Your task to perform on an android device: toggle priority inbox in the gmail app Image 0: 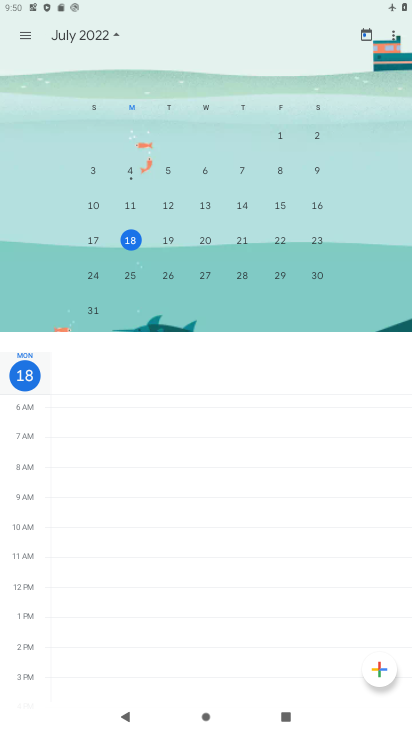
Step 0: press home button
Your task to perform on an android device: toggle priority inbox in the gmail app Image 1: 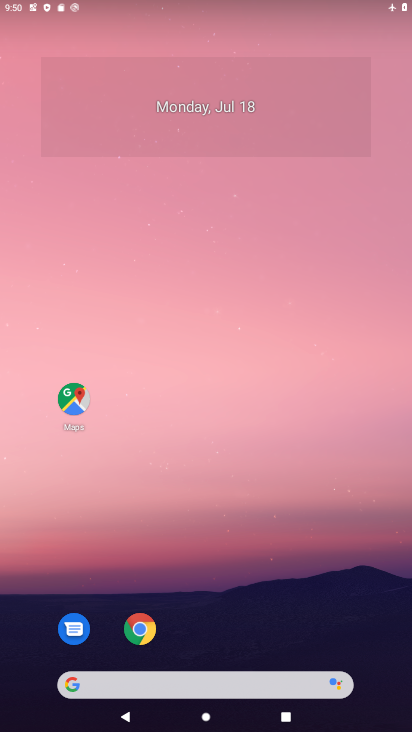
Step 1: drag from (319, 643) to (287, 202)
Your task to perform on an android device: toggle priority inbox in the gmail app Image 2: 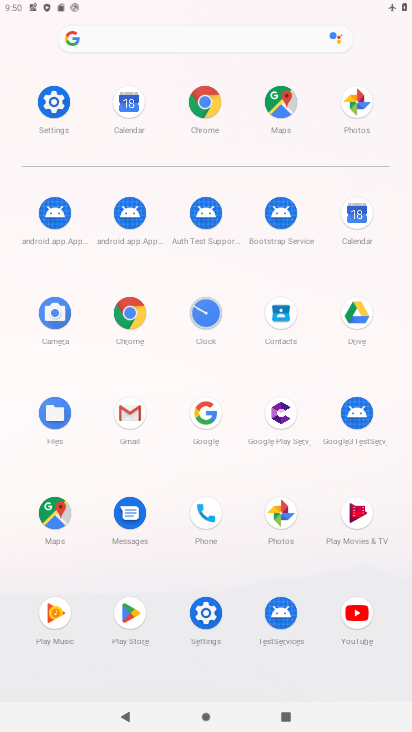
Step 2: click (137, 408)
Your task to perform on an android device: toggle priority inbox in the gmail app Image 3: 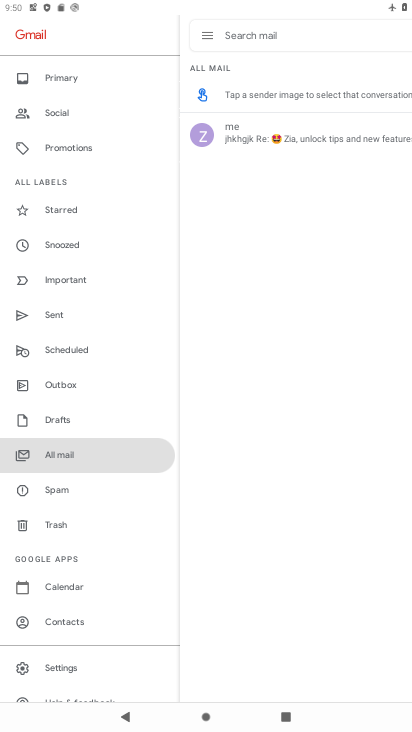
Step 3: click (57, 671)
Your task to perform on an android device: toggle priority inbox in the gmail app Image 4: 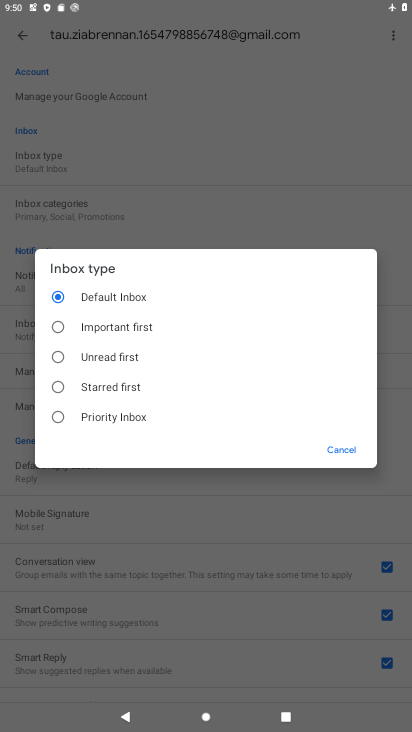
Step 4: click (125, 421)
Your task to perform on an android device: toggle priority inbox in the gmail app Image 5: 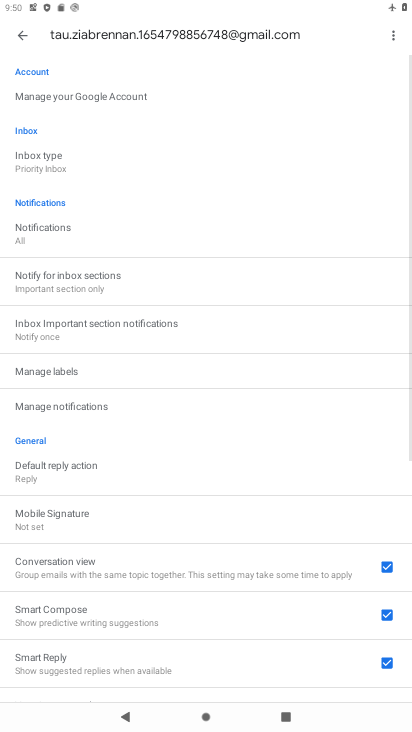
Step 5: task complete